Your task to perform on an android device: turn on airplane mode Image 0: 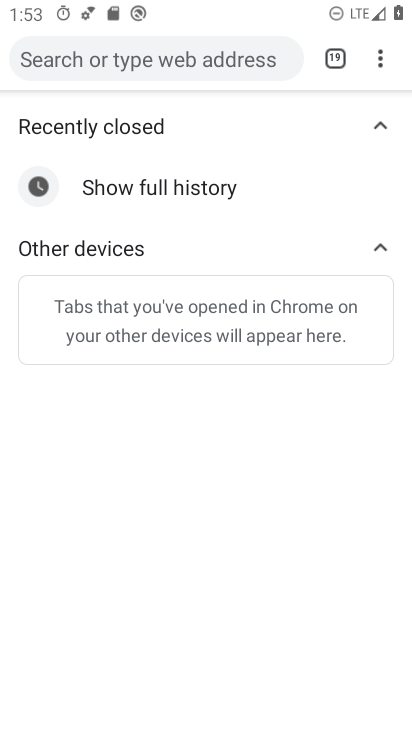
Step 0: press home button
Your task to perform on an android device: turn on airplane mode Image 1: 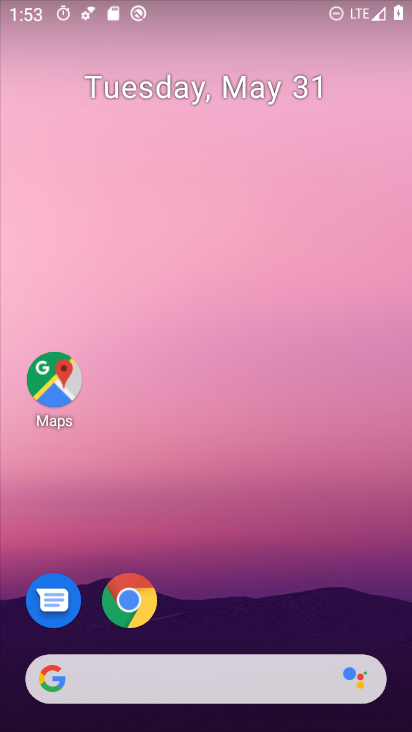
Step 1: drag from (215, 729) to (205, 177)
Your task to perform on an android device: turn on airplane mode Image 2: 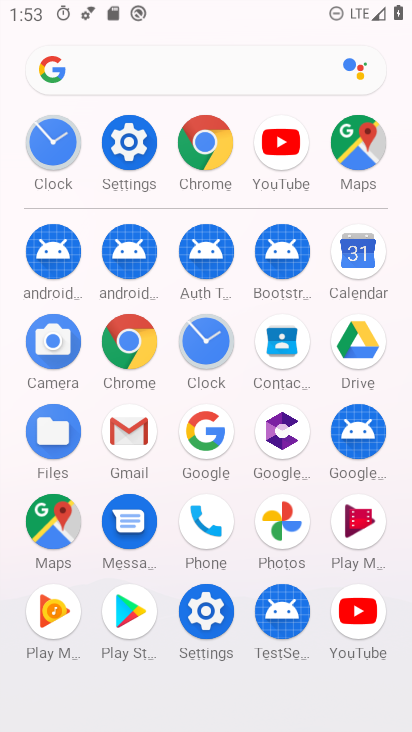
Step 2: click (199, 618)
Your task to perform on an android device: turn on airplane mode Image 3: 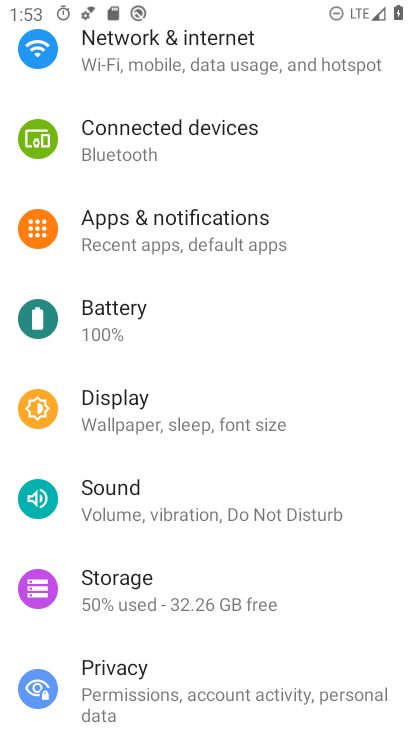
Step 3: drag from (314, 100) to (319, 552)
Your task to perform on an android device: turn on airplane mode Image 4: 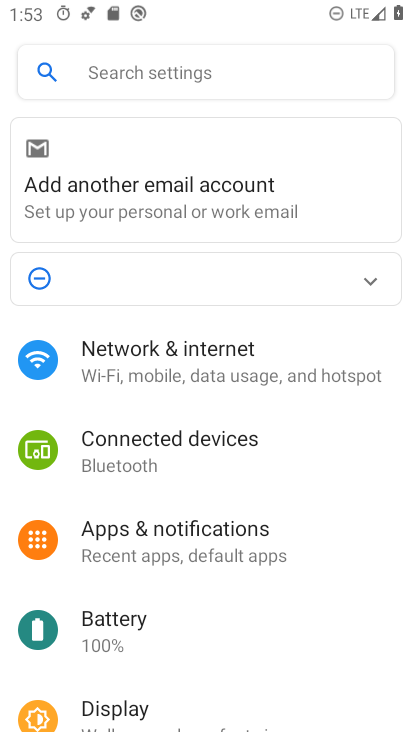
Step 4: click (208, 367)
Your task to perform on an android device: turn on airplane mode Image 5: 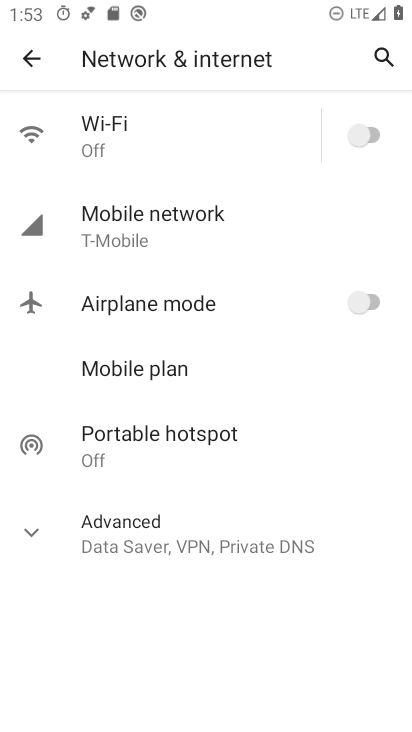
Step 5: click (371, 299)
Your task to perform on an android device: turn on airplane mode Image 6: 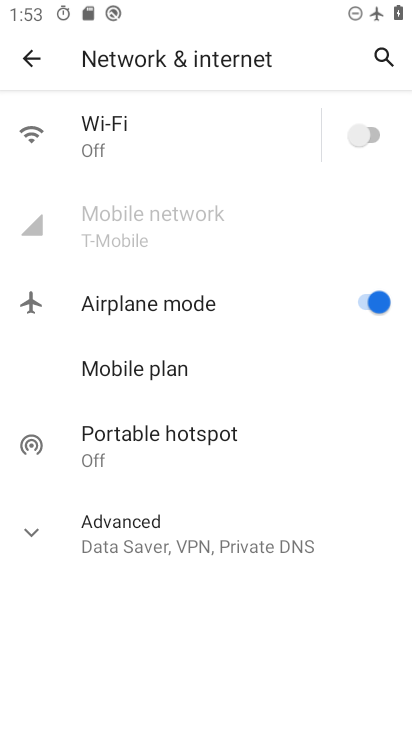
Step 6: task complete